Your task to perform on an android device: Open Chrome and go to the settings page Image 0: 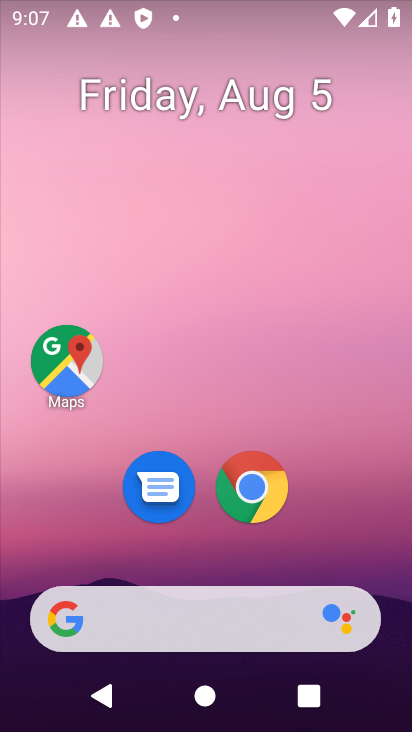
Step 0: click (257, 486)
Your task to perform on an android device: Open Chrome and go to the settings page Image 1: 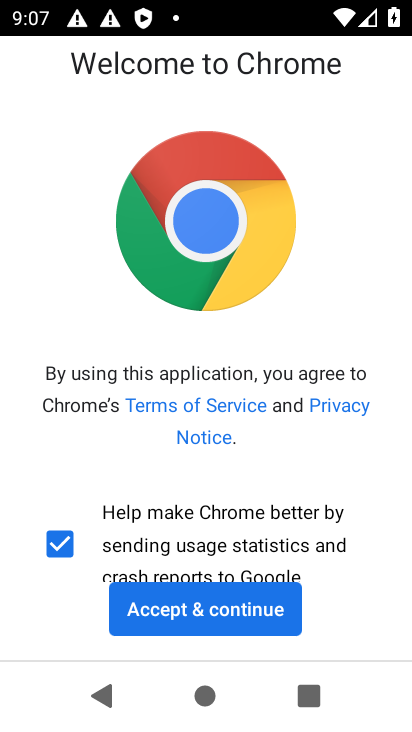
Step 1: click (232, 590)
Your task to perform on an android device: Open Chrome and go to the settings page Image 2: 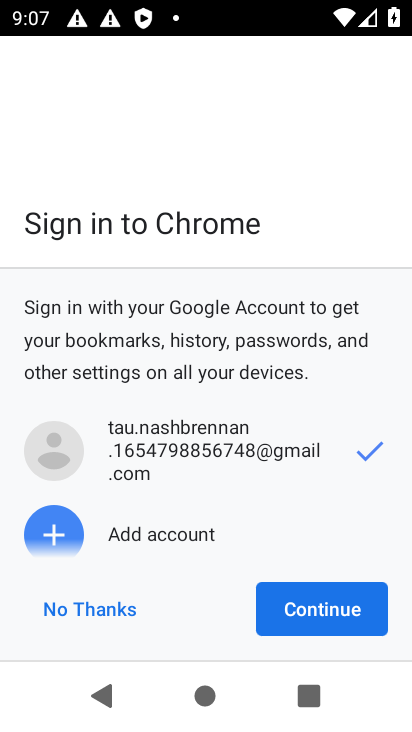
Step 2: click (288, 609)
Your task to perform on an android device: Open Chrome and go to the settings page Image 3: 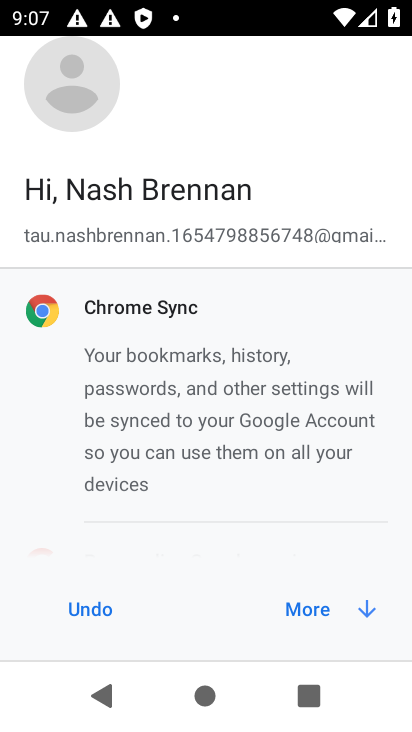
Step 3: click (288, 609)
Your task to perform on an android device: Open Chrome and go to the settings page Image 4: 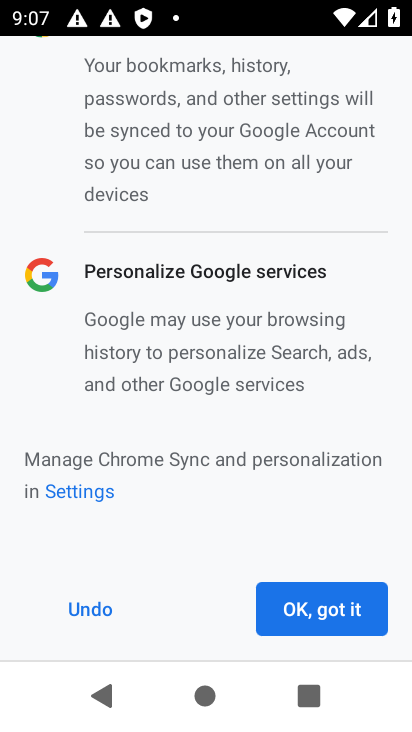
Step 4: click (308, 609)
Your task to perform on an android device: Open Chrome and go to the settings page Image 5: 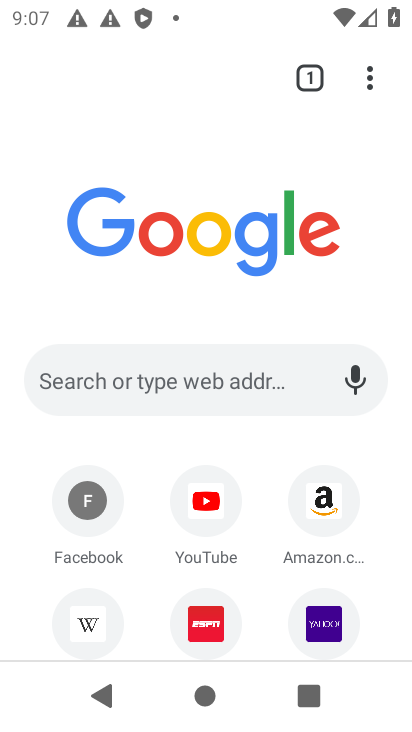
Step 5: click (380, 86)
Your task to perform on an android device: Open Chrome and go to the settings page Image 6: 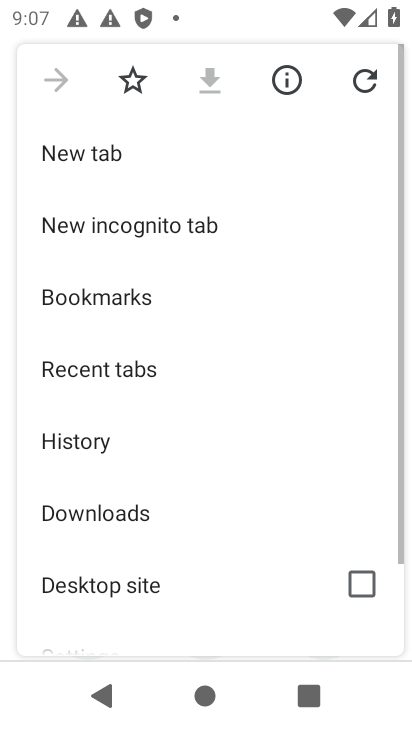
Step 6: drag from (245, 524) to (154, 58)
Your task to perform on an android device: Open Chrome and go to the settings page Image 7: 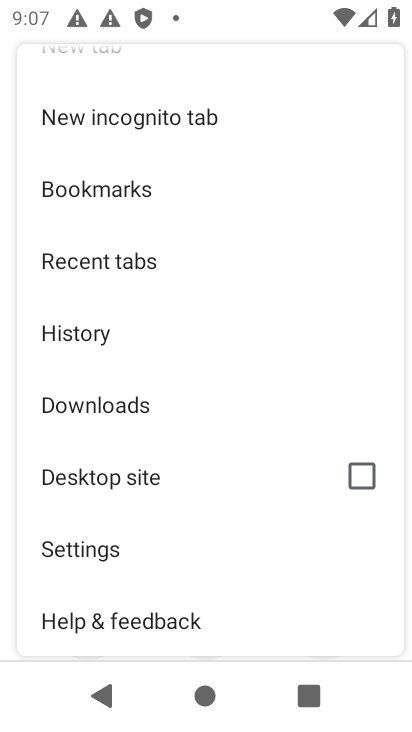
Step 7: click (98, 546)
Your task to perform on an android device: Open Chrome and go to the settings page Image 8: 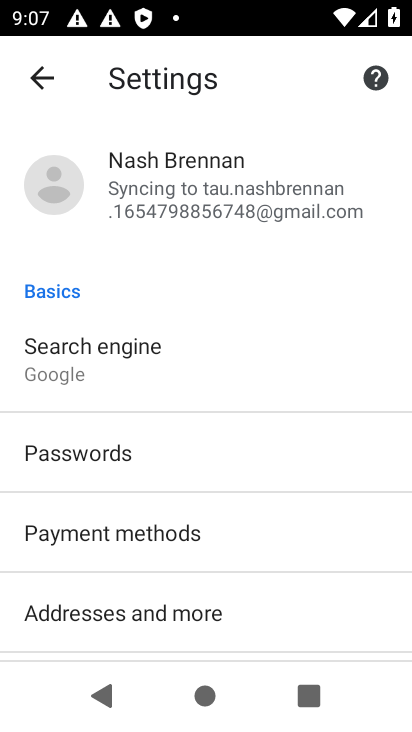
Step 8: task complete